Your task to perform on an android device: See recent photos Image 0: 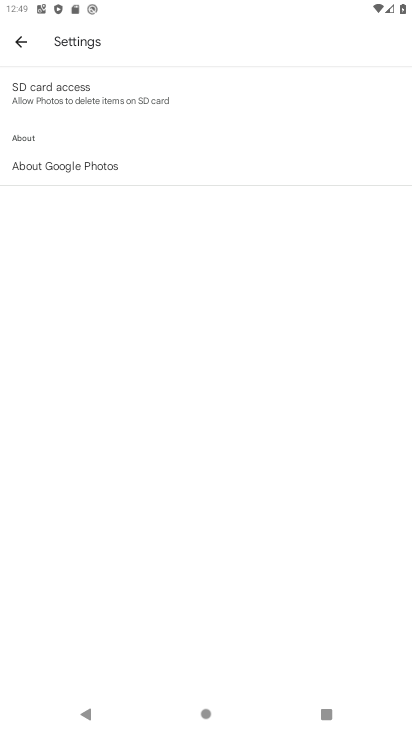
Step 0: press home button
Your task to perform on an android device: See recent photos Image 1: 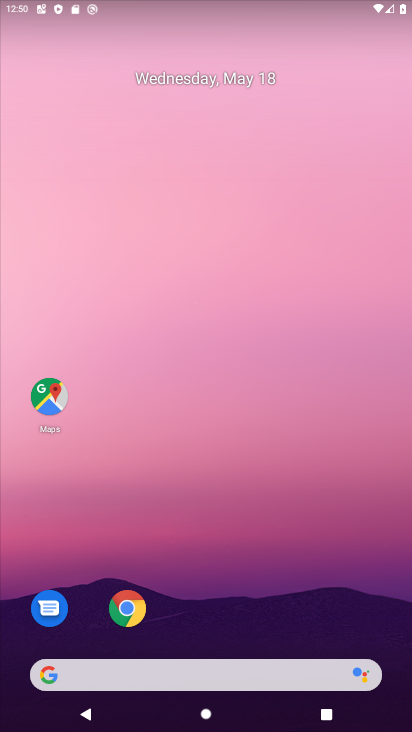
Step 1: drag from (152, 704) to (180, 110)
Your task to perform on an android device: See recent photos Image 2: 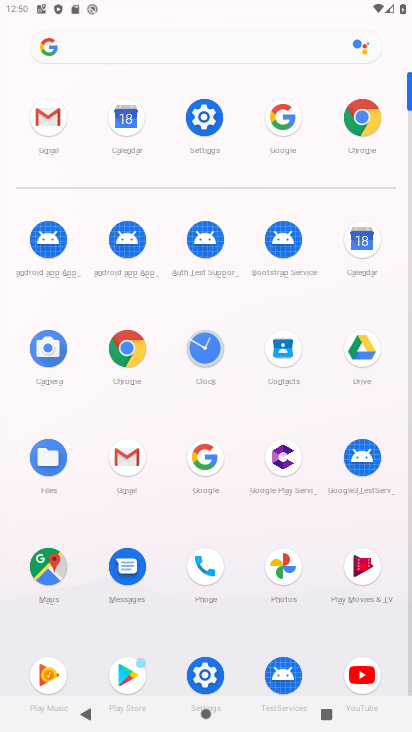
Step 2: click (279, 569)
Your task to perform on an android device: See recent photos Image 3: 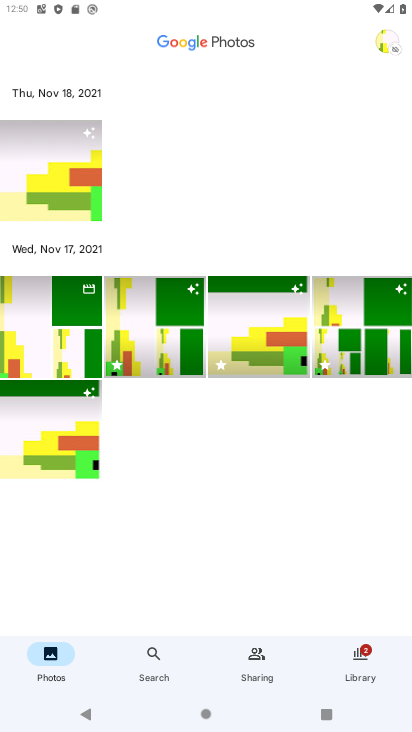
Step 3: task complete